Your task to perform on an android device: uninstall "Truecaller" Image 0: 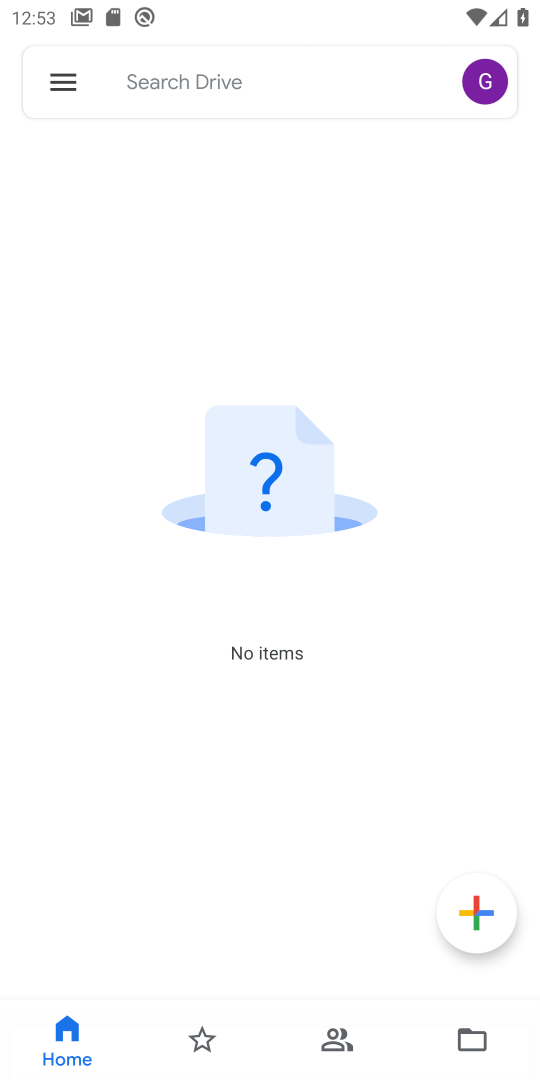
Step 0: press home button
Your task to perform on an android device: uninstall "Truecaller" Image 1: 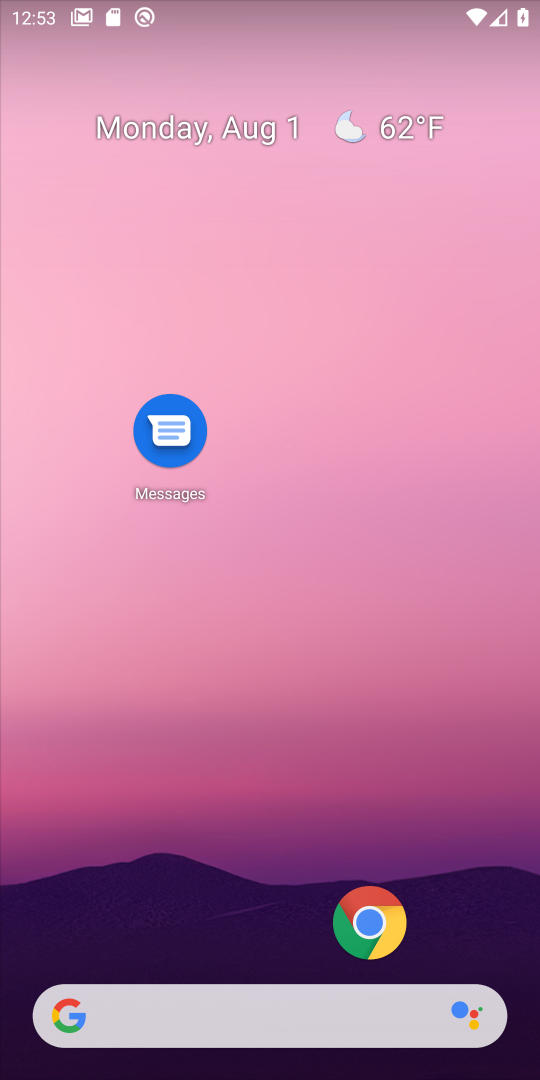
Step 1: drag from (267, 929) to (275, 244)
Your task to perform on an android device: uninstall "Truecaller" Image 2: 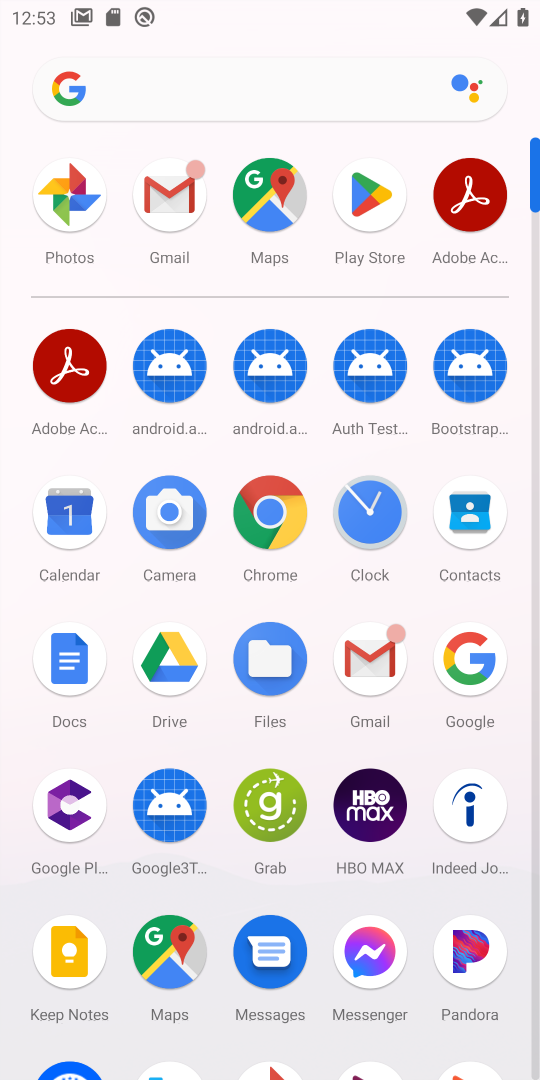
Step 2: click (345, 268)
Your task to perform on an android device: uninstall "Truecaller" Image 3: 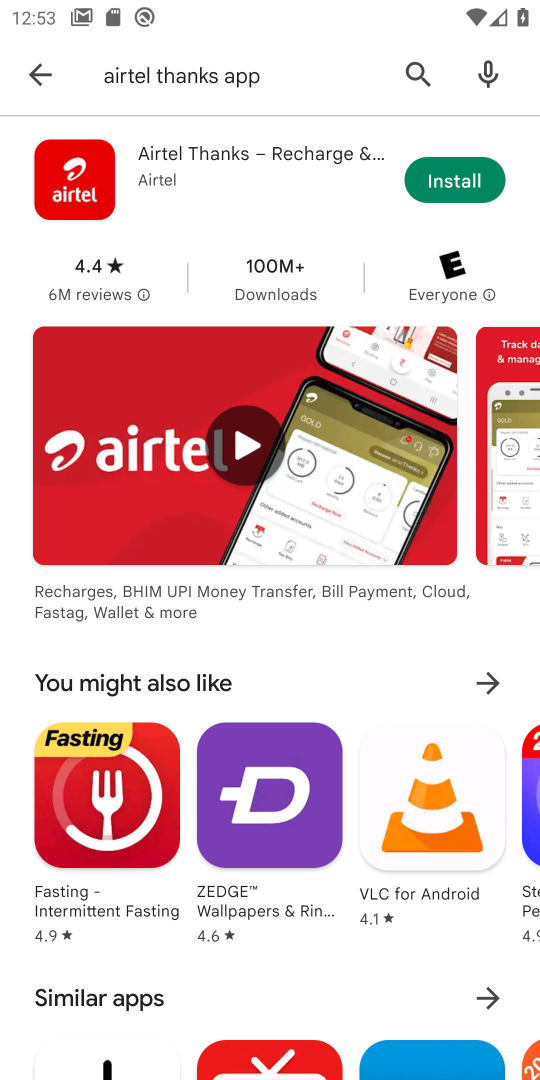
Step 3: click (429, 87)
Your task to perform on an android device: uninstall "Truecaller" Image 4: 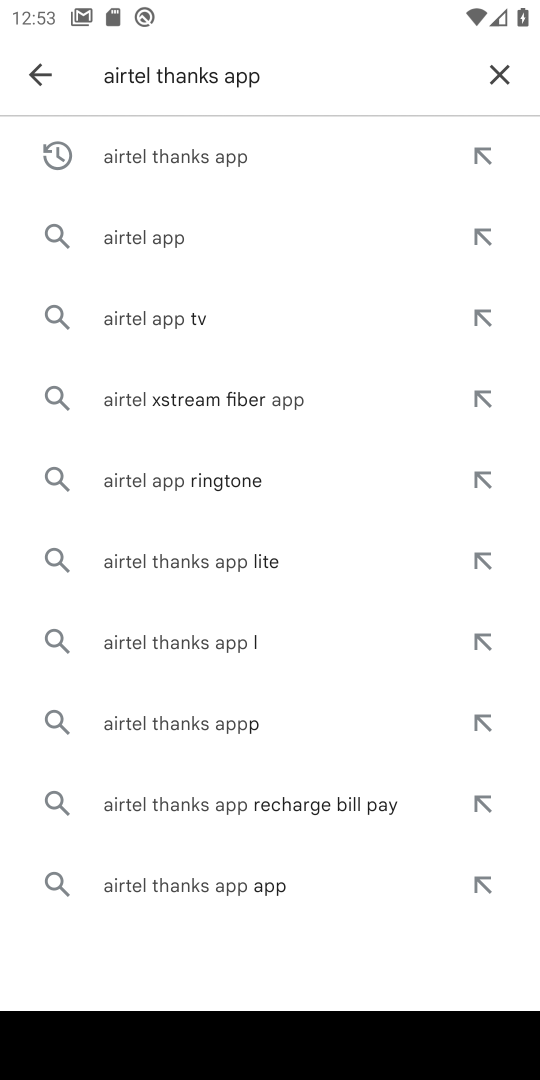
Step 4: click (491, 76)
Your task to perform on an android device: uninstall "Truecaller" Image 5: 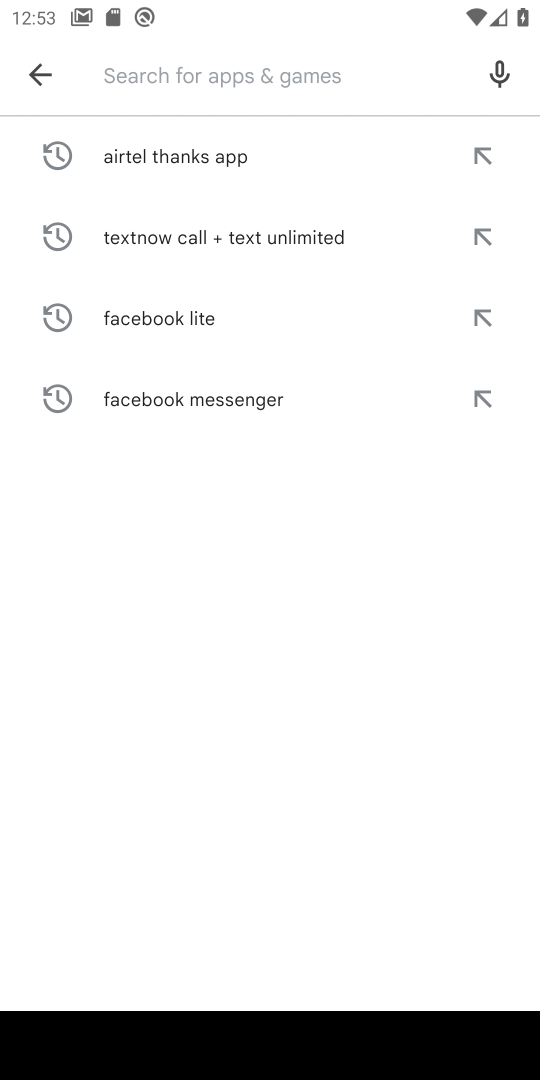
Step 5: type "Truecaller"
Your task to perform on an android device: uninstall "Truecaller" Image 6: 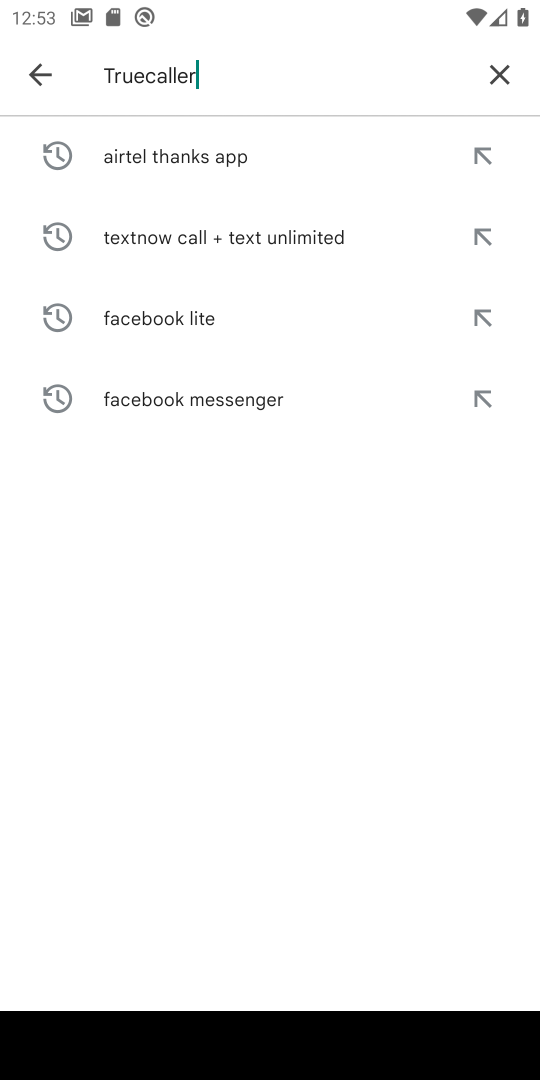
Step 6: type ""
Your task to perform on an android device: uninstall "Truecaller" Image 7: 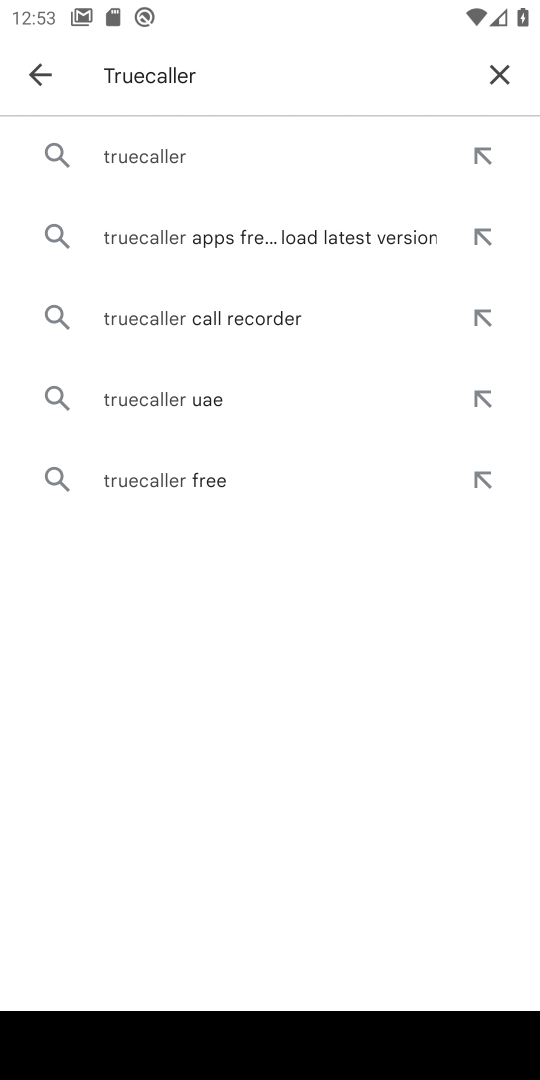
Step 7: click (209, 162)
Your task to perform on an android device: uninstall "Truecaller" Image 8: 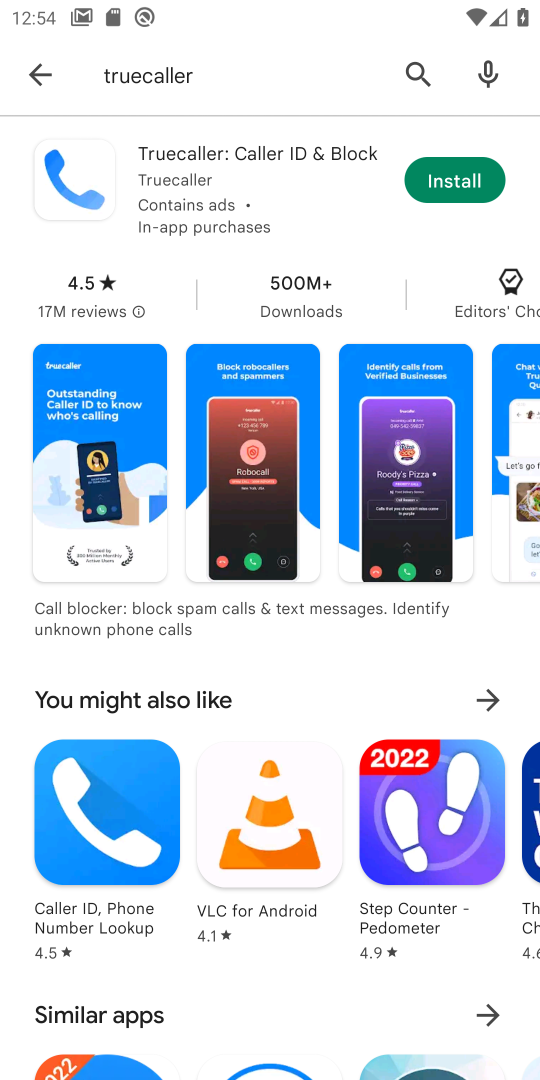
Step 8: task complete